Your task to perform on an android device: remove spam from my inbox in the gmail app Image 0: 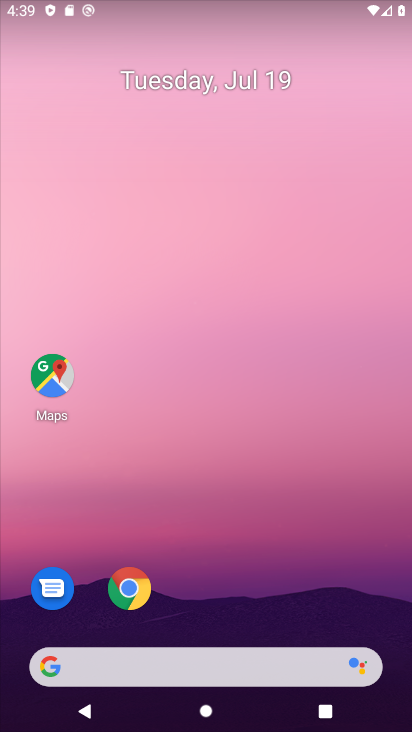
Step 0: drag from (305, 586) to (301, 41)
Your task to perform on an android device: remove spam from my inbox in the gmail app Image 1: 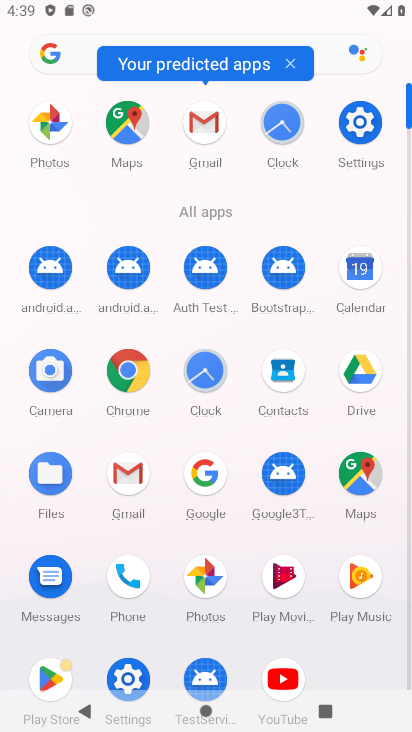
Step 1: click (199, 133)
Your task to perform on an android device: remove spam from my inbox in the gmail app Image 2: 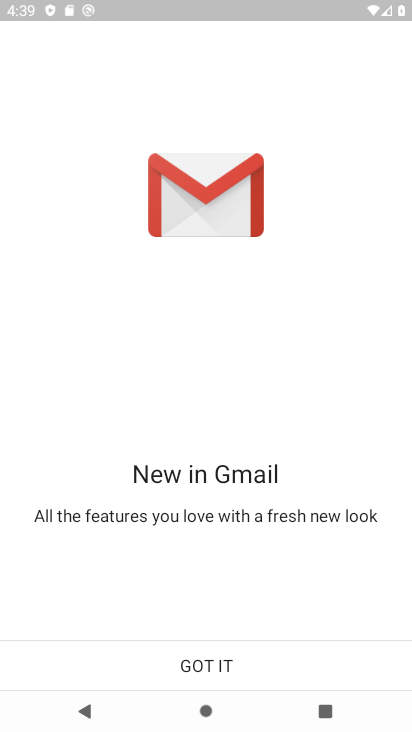
Step 2: click (222, 661)
Your task to perform on an android device: remove spam from my inbox in the gmail app Image 3: 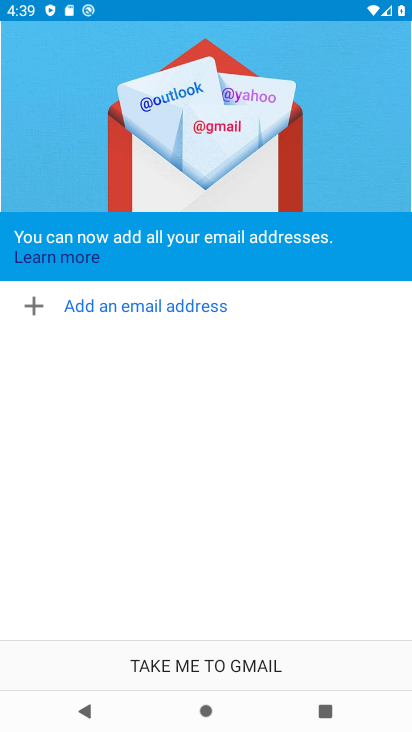
Step 3: click (223, 659)
Your task to perform on an android device: remove spam from my inbox in the gmail app Image 4: 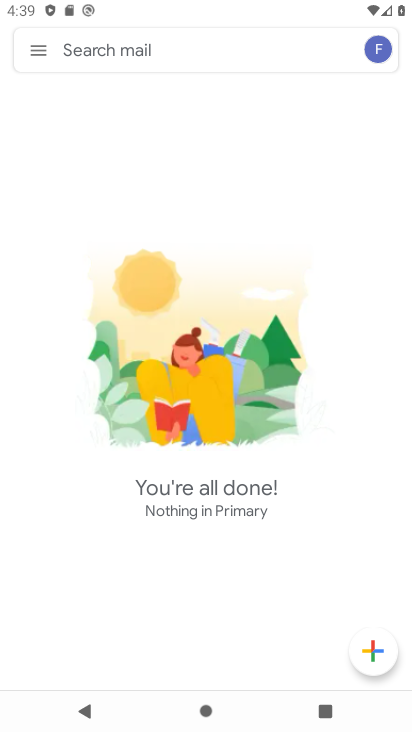
Step 4: task complete